Your task to perform on an android device: open app "Gboard" (install if not already installed) Image 0: 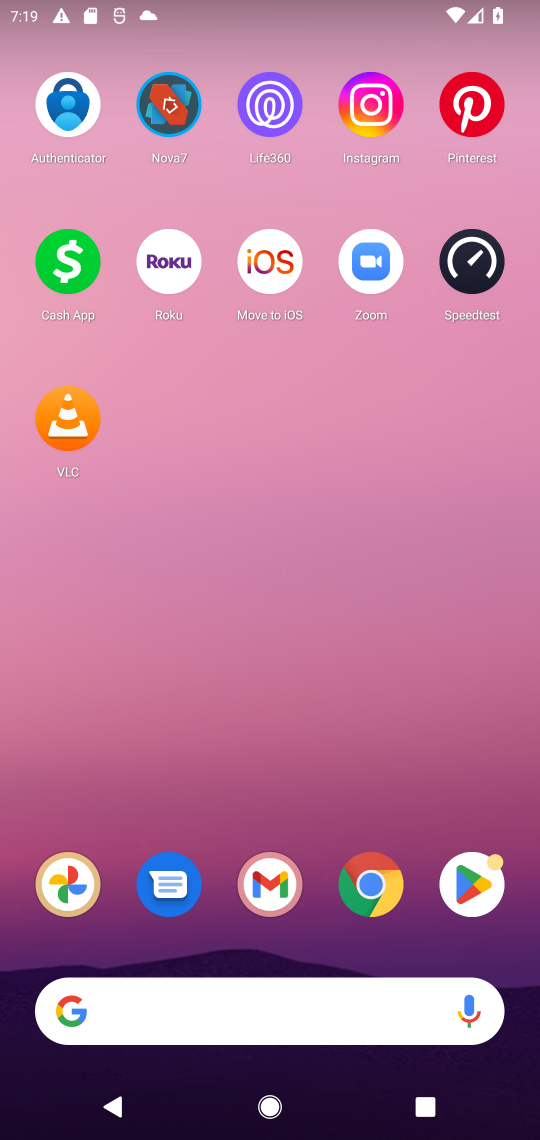
Step 0: press home button
Your task to perform on an android device: open app "Gboard" (install if not already installed) Image 1: 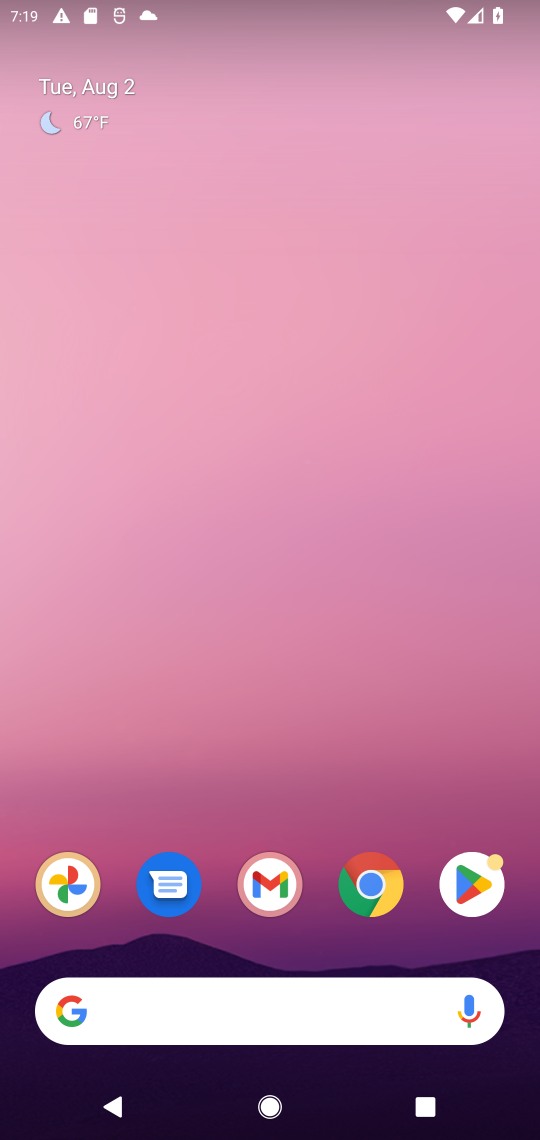
Step 1: click (480, 888)
Your task to perform on an android device: open app "Gboard" (install if not already installed) Image 2: 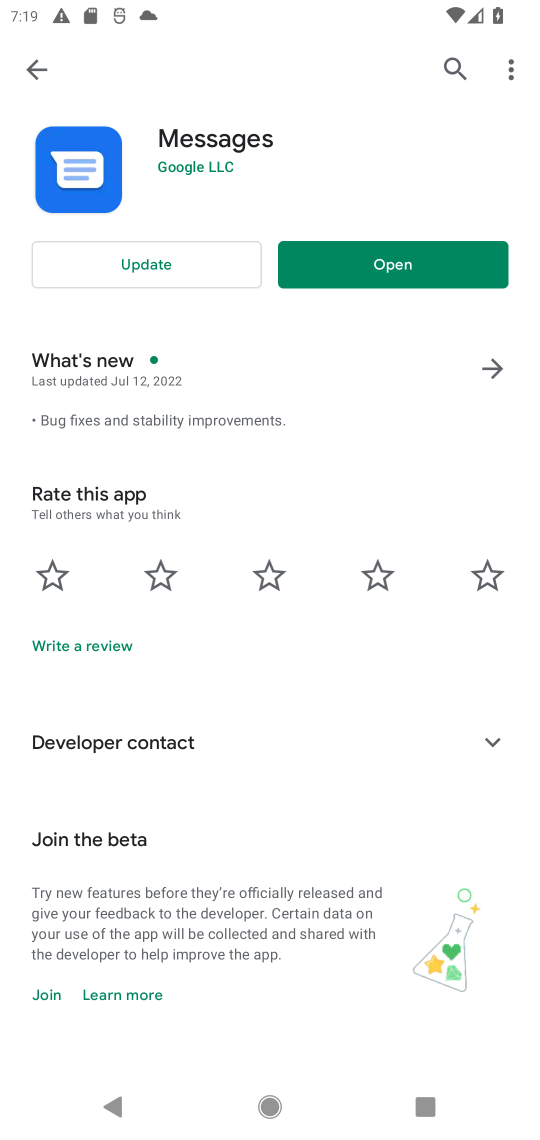
Step 2: click (442, 80)
Your task to perform on an android device: open app "Gboard" (install if not already installed) Image 3: 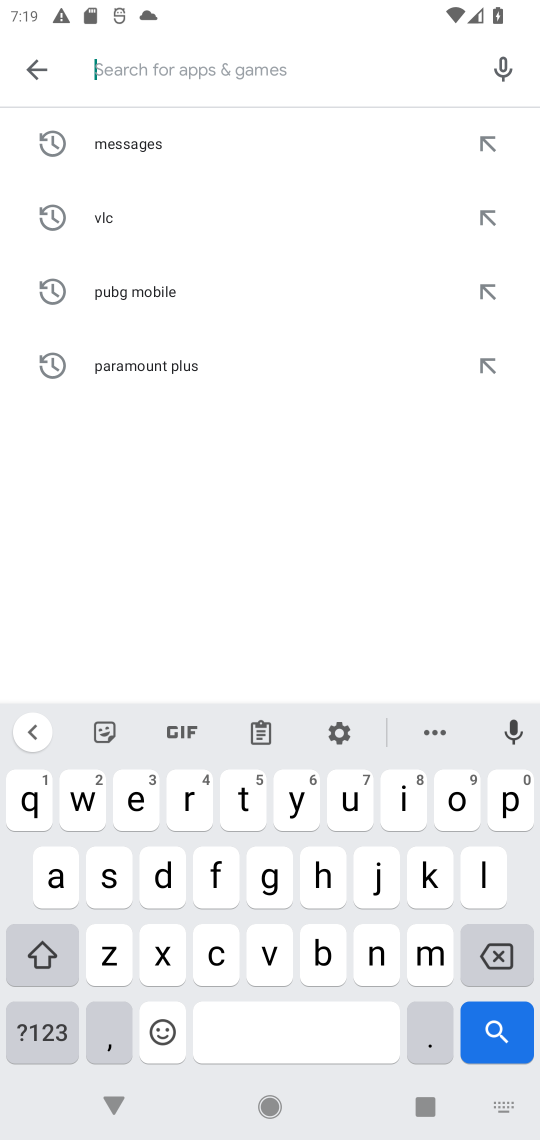
Step 3: click (270, 881)
Your task to perform on an android device: open app "Gboard" (install if not already installed) Image 4: 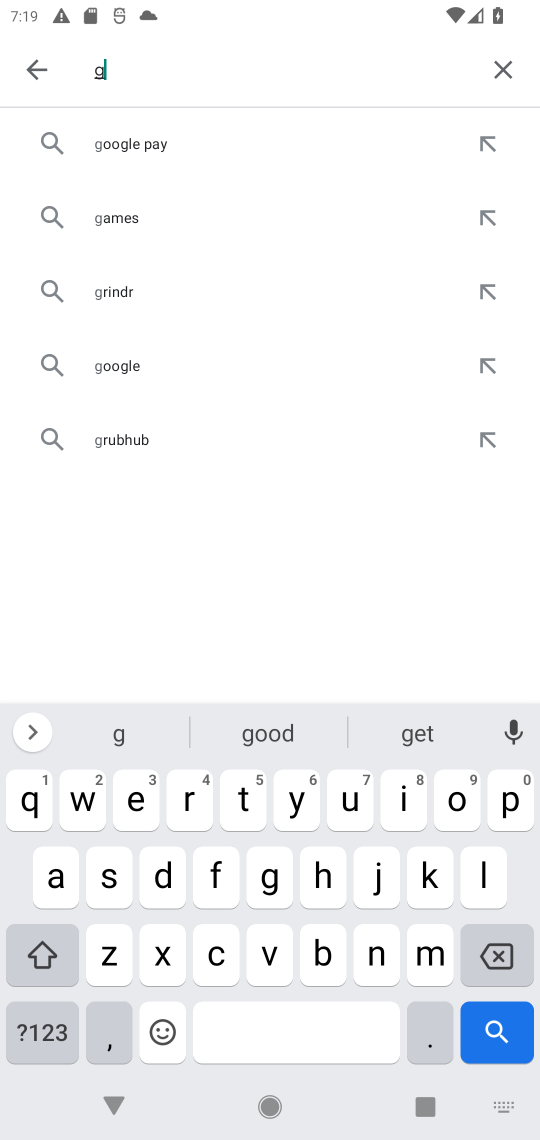
Step 4: click (315, 960)
Your task to perform on an android device: open app "Gboard" (install if not already installed) Image 5: 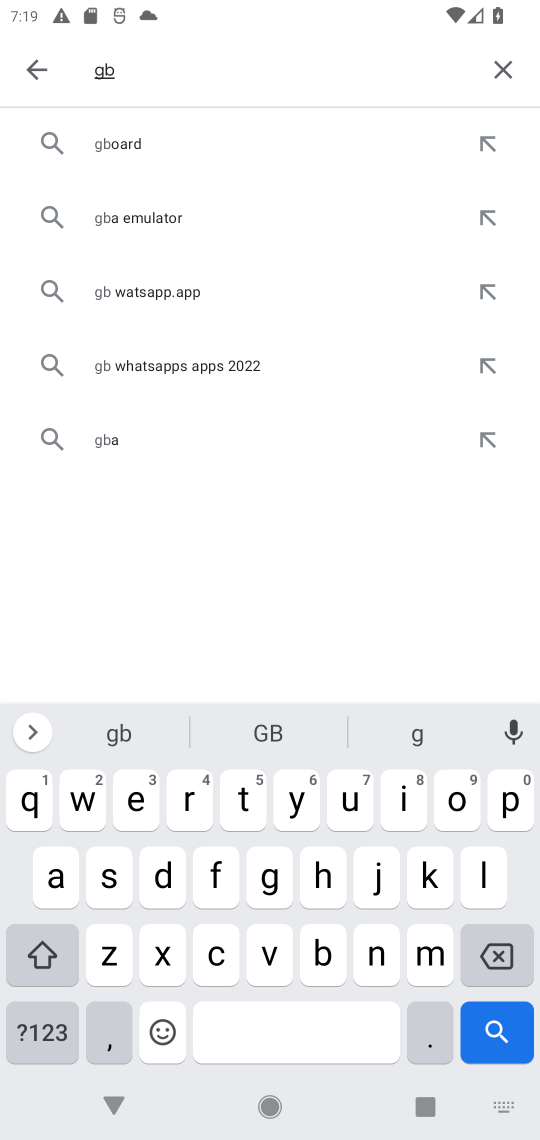
Step 5: click (451, 807)
Your task to perform on an android device: open app "Gboard" (install if not already installed) Image 6: 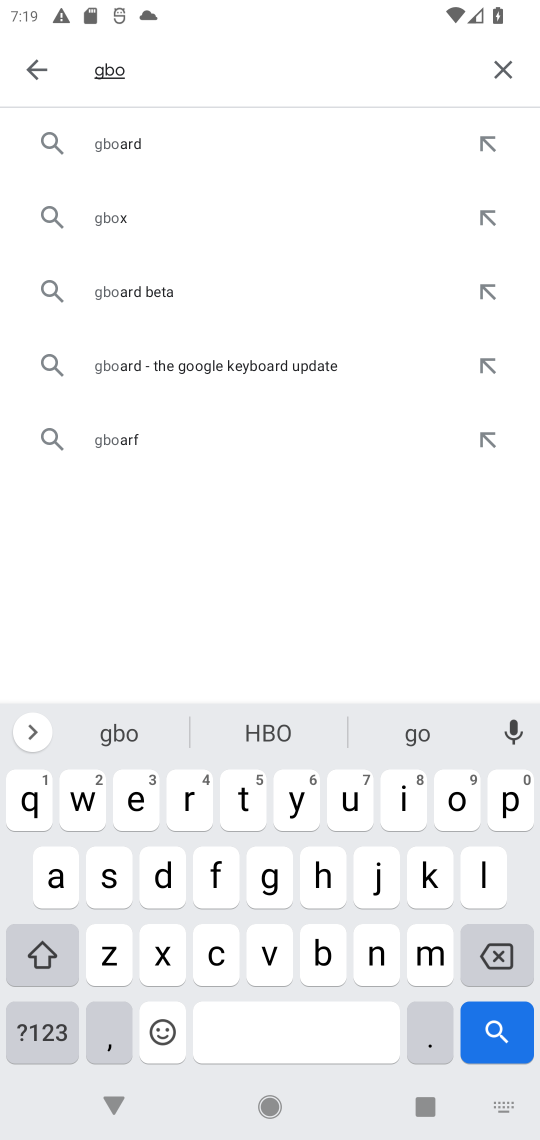
Step 6: click (144, 142)
Your task to perform on an android device: open app "Gboard" (install if not already installed) Image 7: 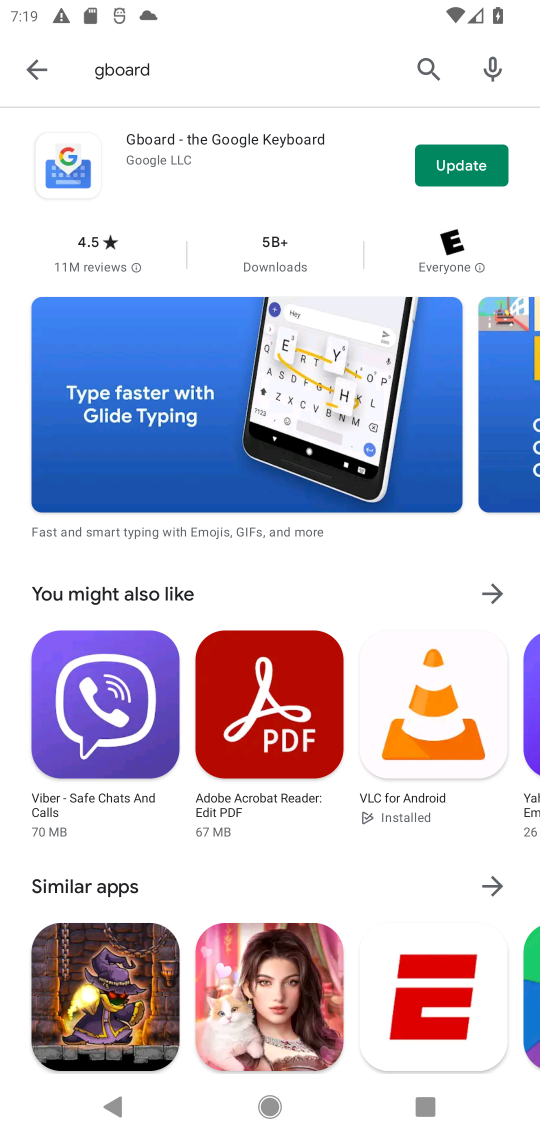
Step 7: click (442, 177)
Your task to perform on an android device: open app "Gboard" (install if not already installed) Image 8: 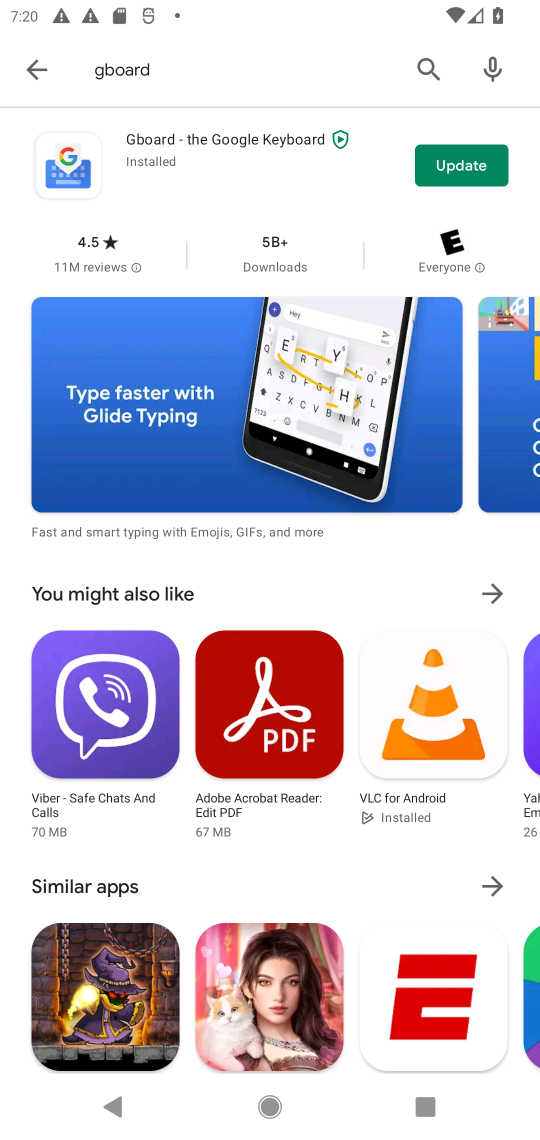
Step 8: click (63, 162)
Your task to perform on an android device: open app "Gboard" (install if not already installed) Image 9: 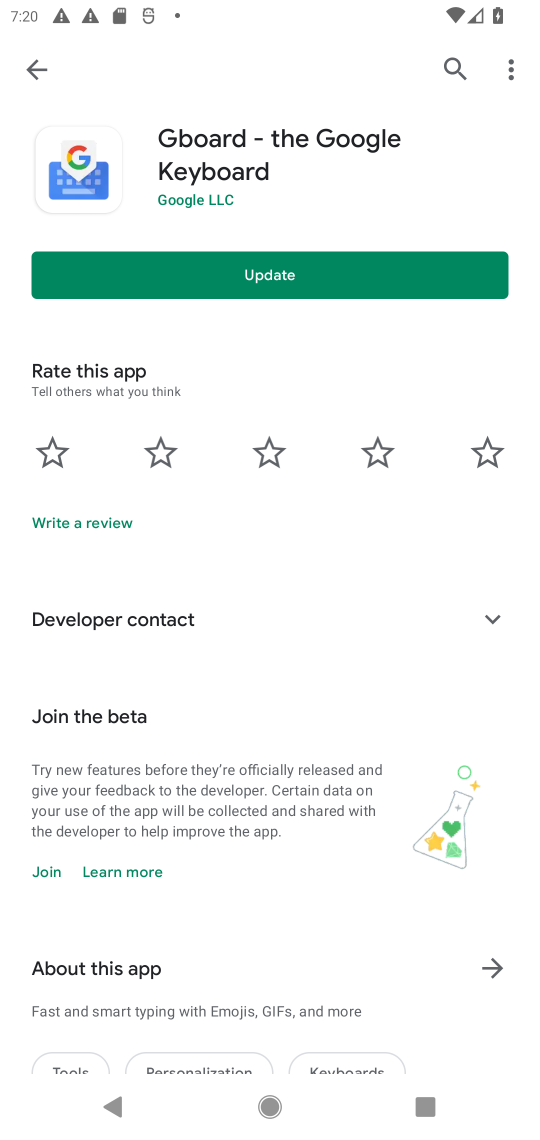
Step 9: click (251, 281)
Your task to perform on an android device: open app "Gboard" (install if not already installed) Image 10: 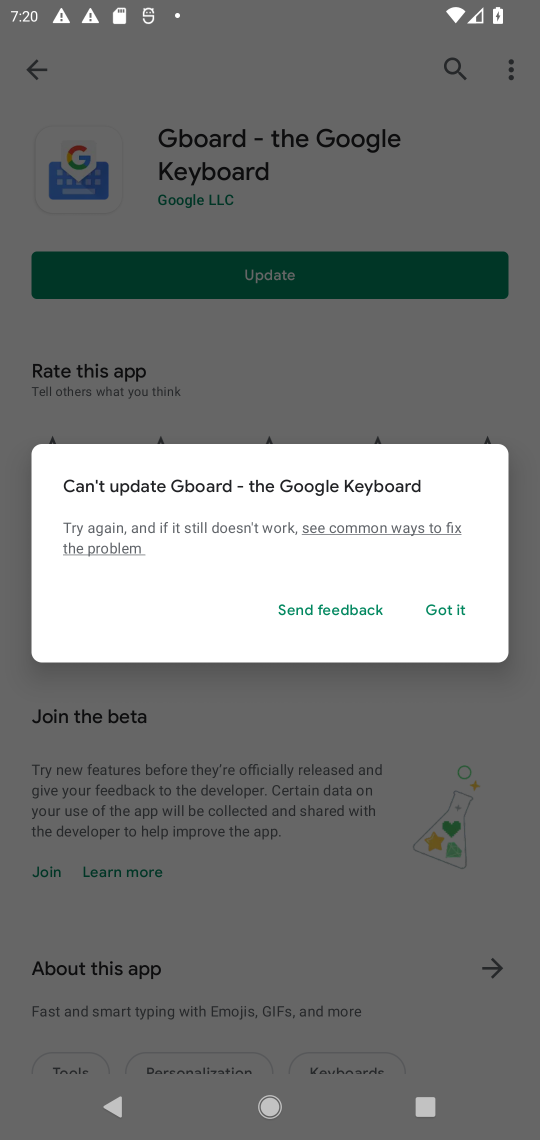
Step 10: click (439, 606)
Your task to perform on an android device: open app "Gboard" (install if not already installed) Image 11: 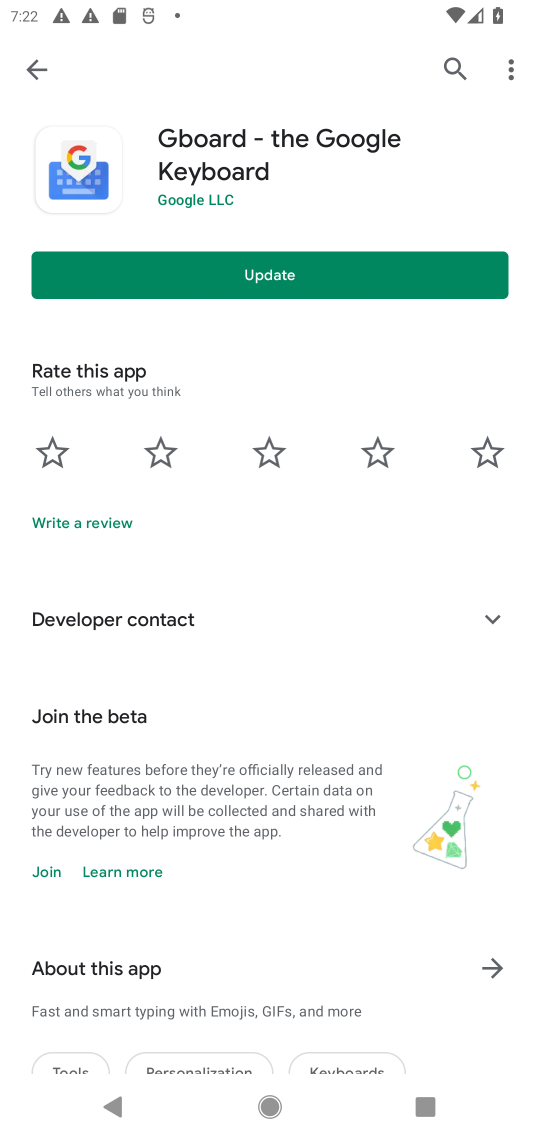
Step 11: task complete